Your task to perform on an android device: Look up the best rated 5.1 home theater speakers on Walmart. Image 0: 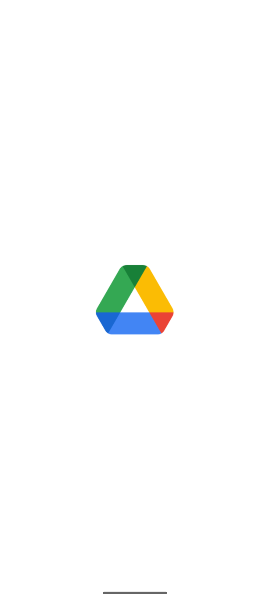
Step 0: press home button
Your task to perform on an android device: Look up the best rated 5.1 home theater speakers on Walmart. Image 1: 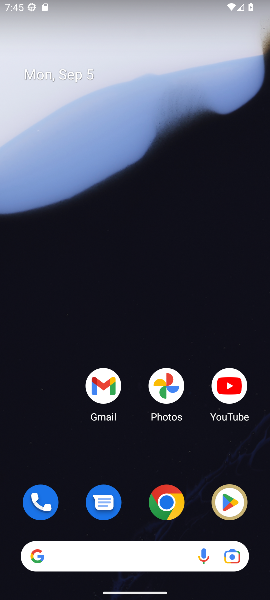
Step 1: drag from (196, 519) to (173, 31)
Your task to perform on an android device: Look up the best rated 5.1 home theater speakers on Walmart. Image 2: 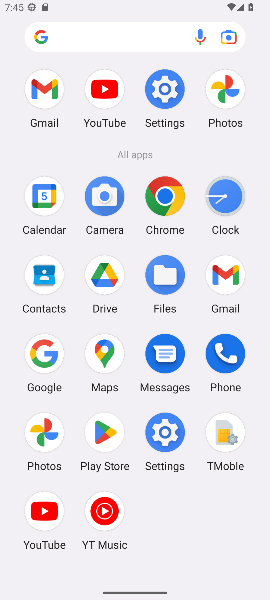
Step 2: click (39, 356)
Your task to perform on an android device: Look up the best rated 5.1 home theater speakers on Walmart. Image 3: 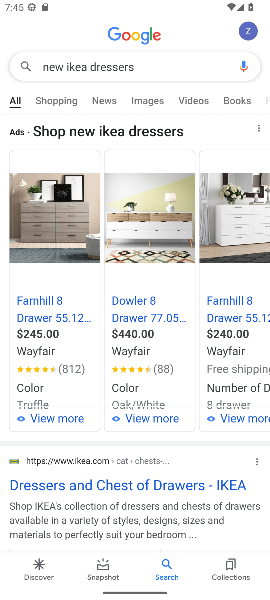
Step 3: press back button
Your task to perform on an android device: Look up the best rated 5.1 home theater speakers on Walmart. Image 4: 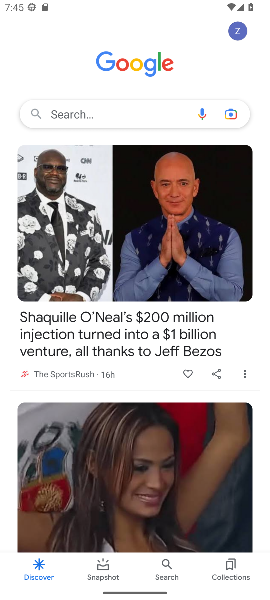
Step 4: click (79, 104)
Your task to perform on an android device: Look up the best rated 5.1 home theater speakers on Walmart. Image 5: 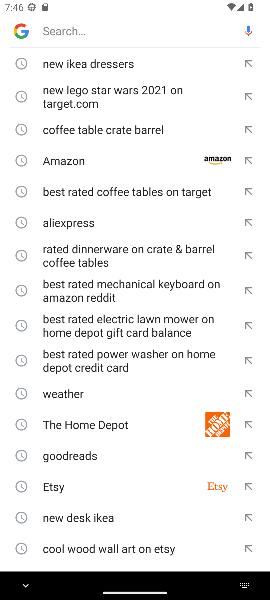
Step 5: type " 5.1 home theater speakers on Walmart"
Your task to perform on an android device: Look up the best rated 5.1 home theater speakers on Walmart. Image 6: 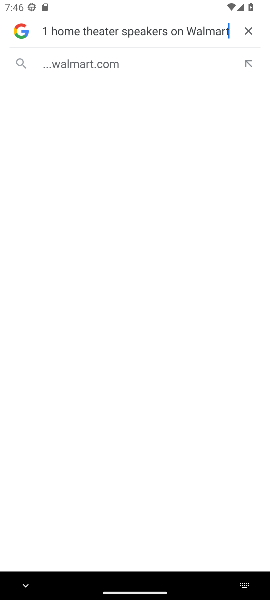
Step 6: click (89, 59)
Your task to perform on an android device: Look up the best rated 5.1 home theater speakers on Walmart. Image 7: 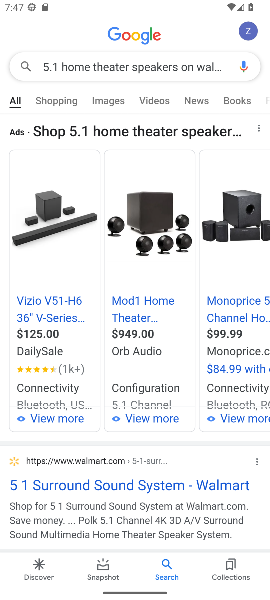
Step 7: task complete